Your task to perform on an android device: Open the calendar and show me this week's events? Image 0: 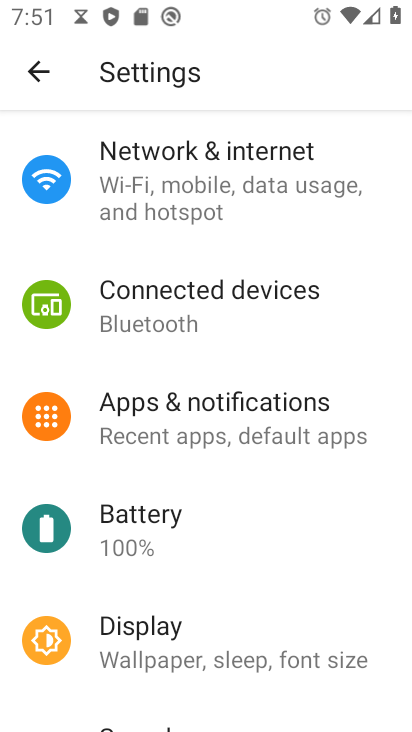
Step 0: press home button
Your task to perform on an android device: Open the calendar and show me this week's events? Image 1: 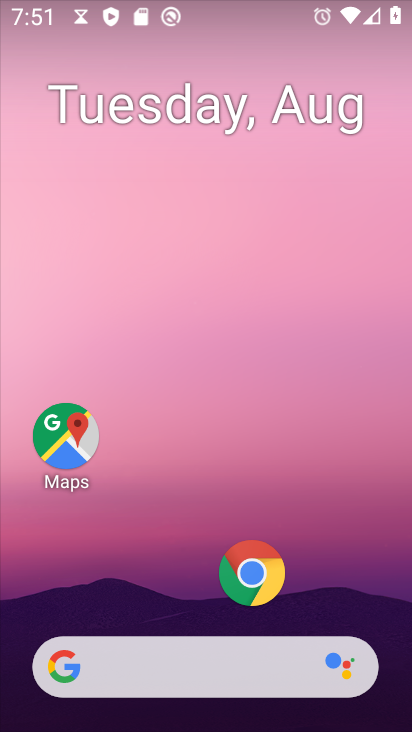
Step 1: drag from (182, 601) to (234, 37)
Your task to perform on an android device: Open the calendar and show me this week's events? Image 2: 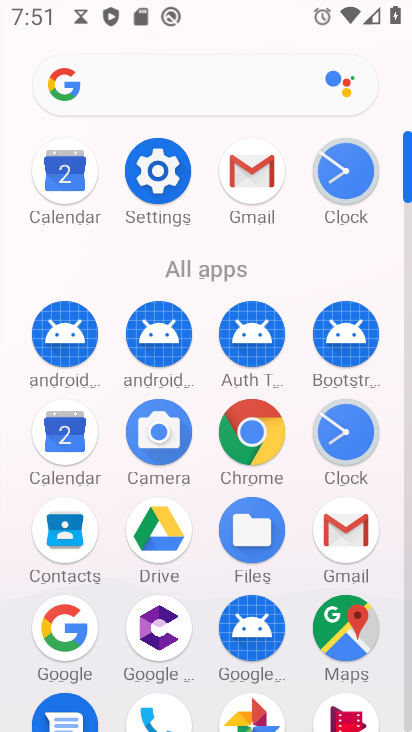
Step 2: click (64, 435)
Your task to perform on an android device: Open the calendar and show me this week's events? Image 3: 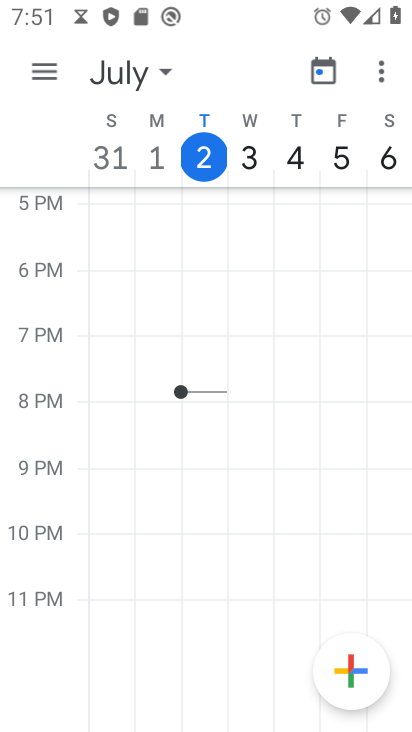
Step 3: click (46, 69)
Your task to perform on an android device: Open the calendar and show me this week's events? Image 4: 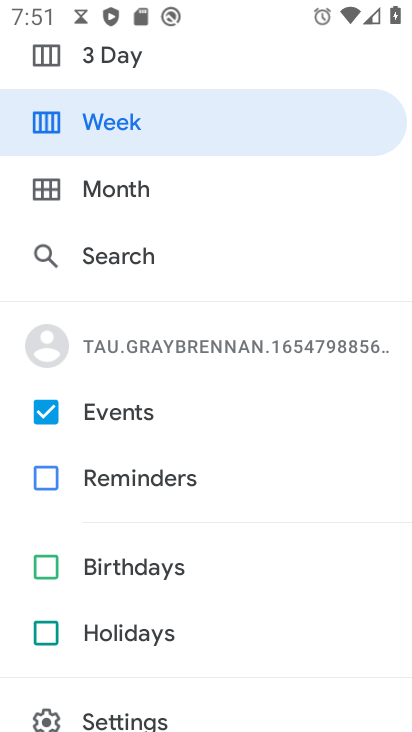
Step 4: drag from (108, 88) to (115, 323)
Your task to perform on an android device: Open the calendar and show me this week's events? Image 5: 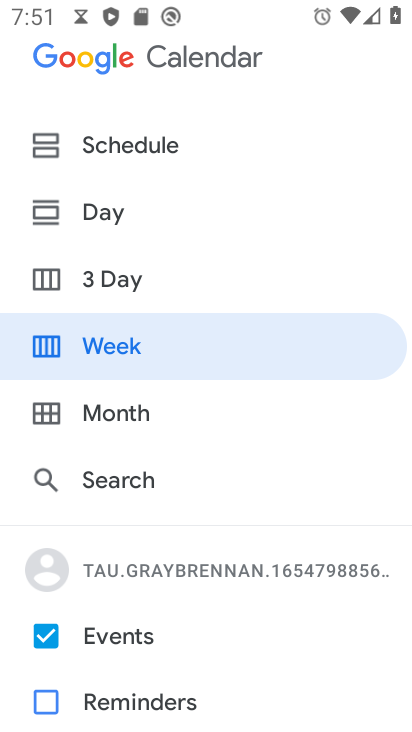
Step 5: click (92, 139)
Your task to perform on an android device: Open the calendar and show me this week's events? Image 6: 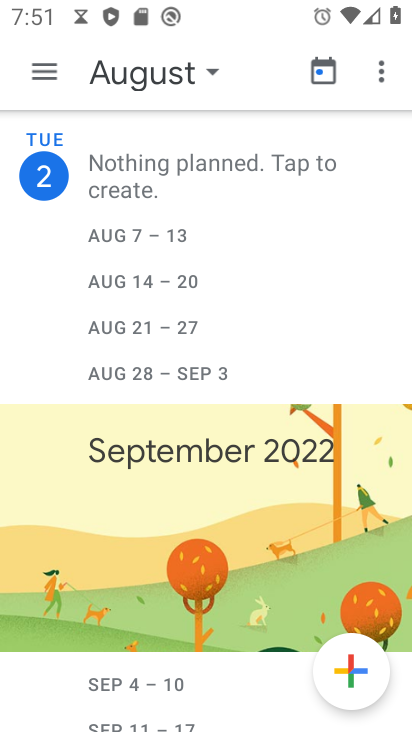
Step 6: click (53, 170)
Your task to perform on an android device: Open the calendar and show me this week's events? Image 7: 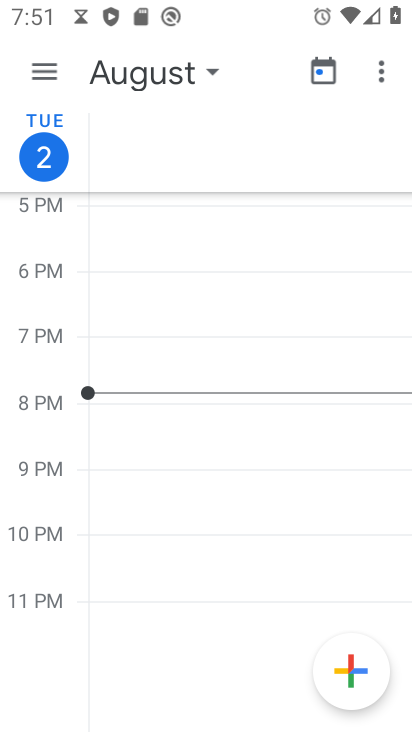
Step 7: task complete